Your task to perform on an android device: Open ESPN.com Image 0: 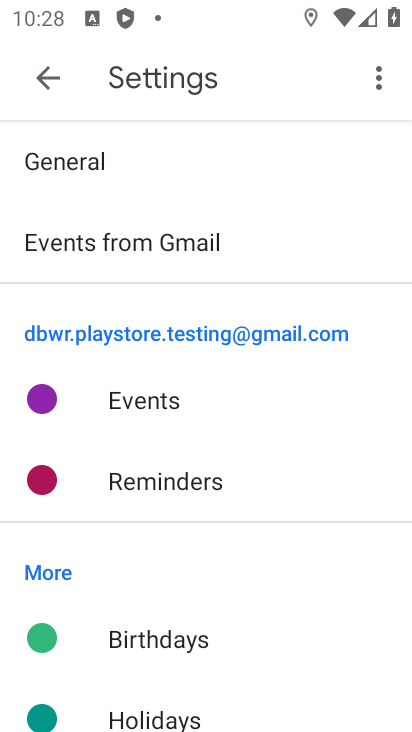
Step 0: press home button
Your task to perform on an android device: Open ESPN.com Image 1: 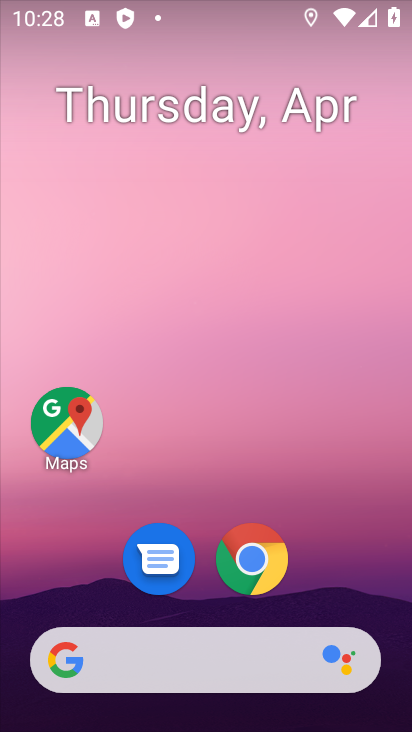
Step 1: click (245, 661)
Your task to perform on an android device: Open ESPN.com Image 2: 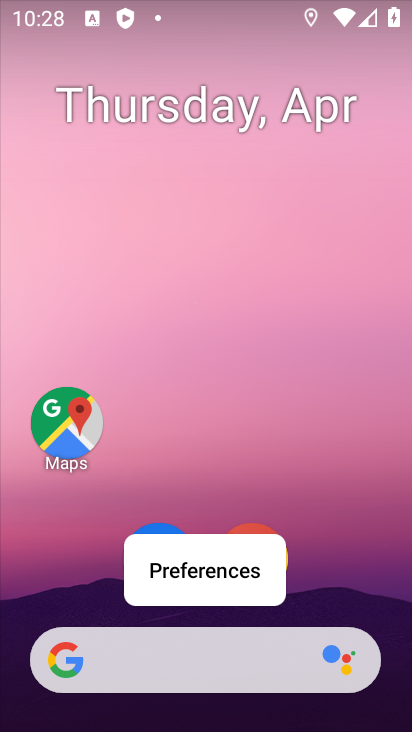
Step 2: click (180, 672)
Your task to perform on an android device: Open ESPN.com Image 3: 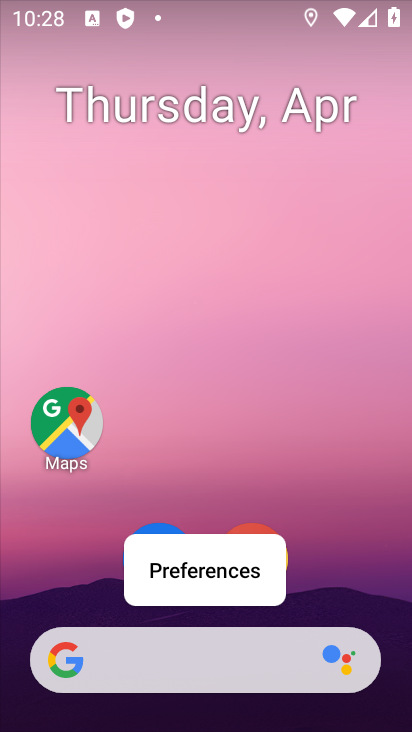
Step 3: click (180, 672)
Your task to perform on an android device: Open ESPN.com Image 4: 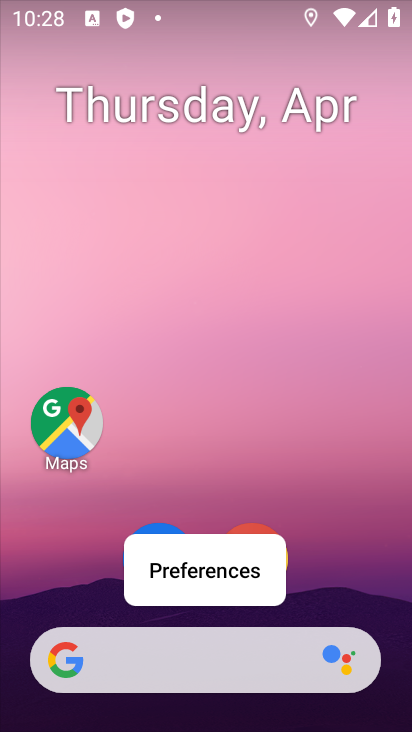
Step 4: click (269, 531)
Your task to perform on an android device: Open ESPN.com Image 5: 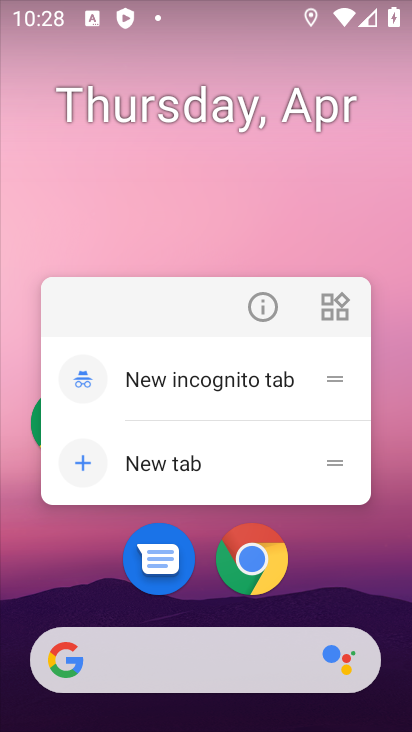
Step 5: click (249, 554)
Your task to perform on an android device: Open ESPN.com Image 6: 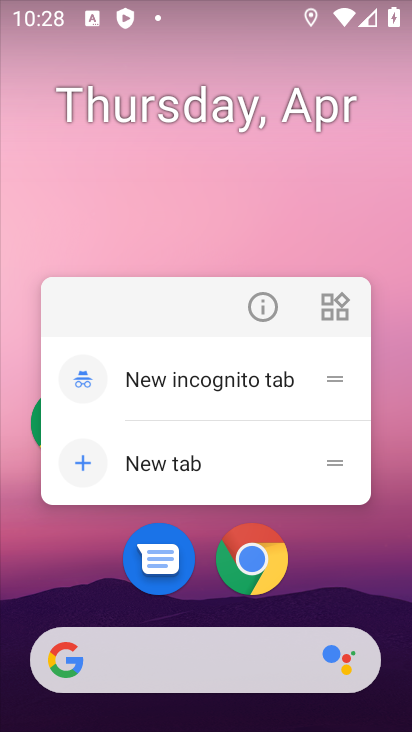
Step 6: click (245, 657)
Your task to perform on an android device: Open ESPN.com Image 7: 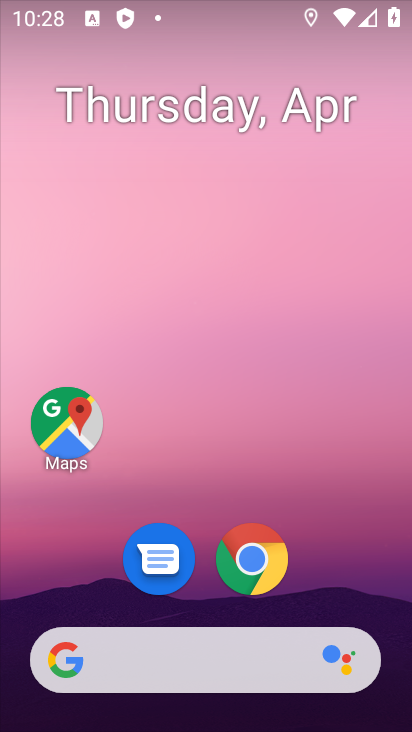
Step 7: click (73, 653)
Your task to perform on an android device: Open ESPN.com Image 8: 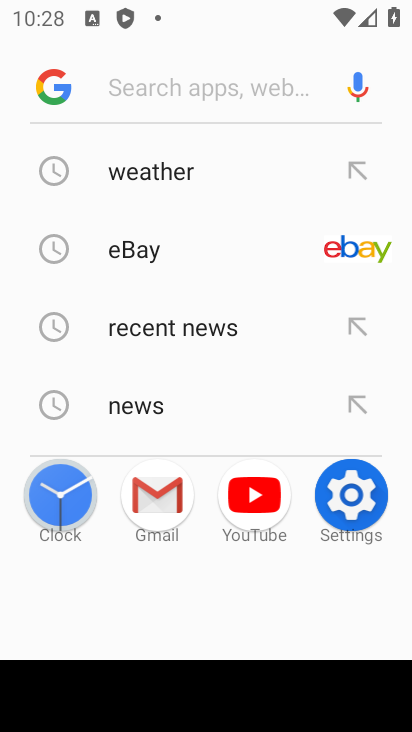
Step 8: click (73, 653)
Your task to perform on an android device: Open ESPN.com Image 9: 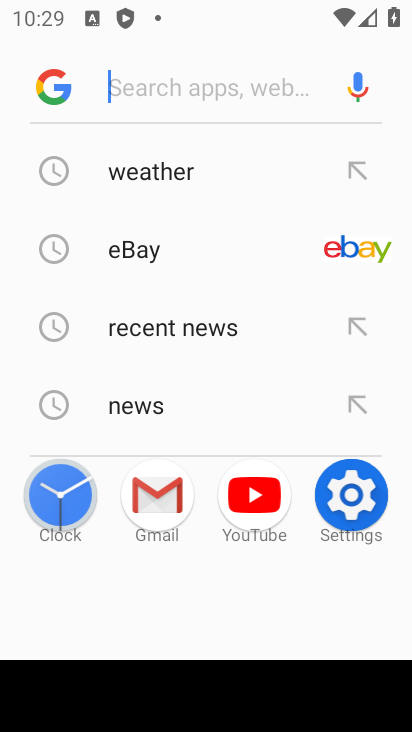
Step 9: type "espn.com"
Your task to perform on an android device: Open ESPN.com Image 10: 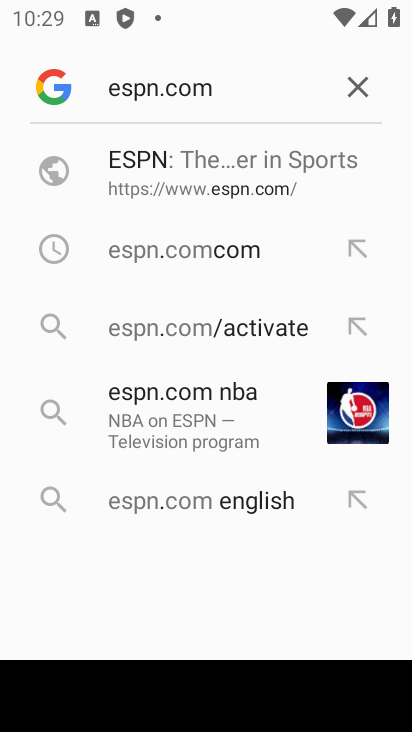
Step 10: click (299, 183)
Your task to perform on an android device: Open ESPN.com Image 11: 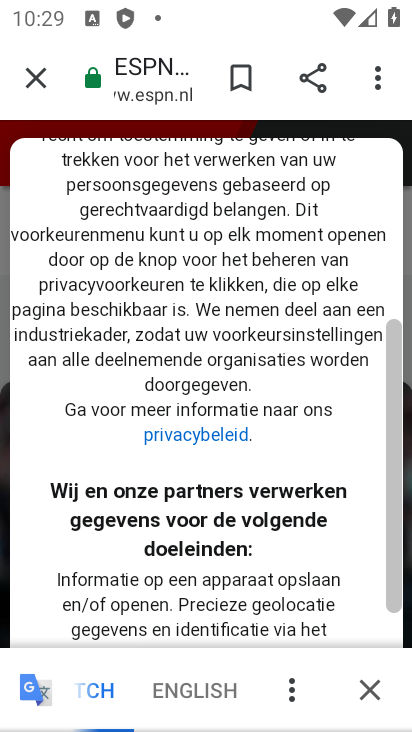
Step 11: task complete